Your task to perform on an android device: turn notification dots off Image 0: 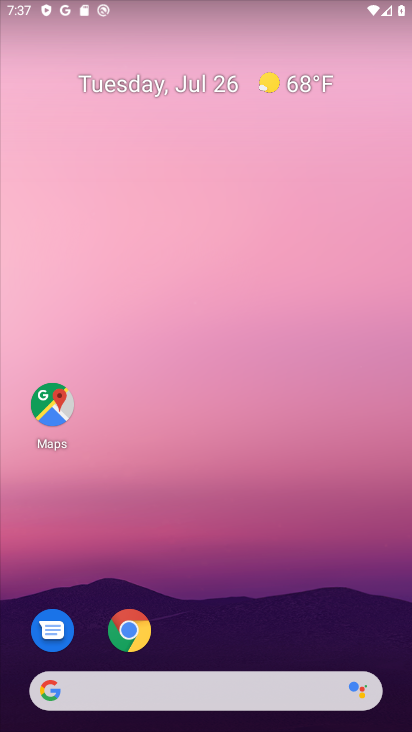
Step 0: press home button
Your task to perform on an android device: turn notification dots off Image 1: 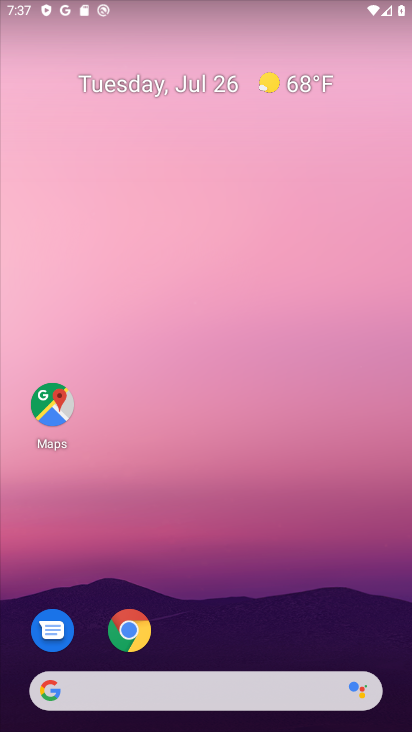
Step 1: drag from (363, 624) to (361, 55)
Your task to perform on an android device: turn notification dots off Image 2: 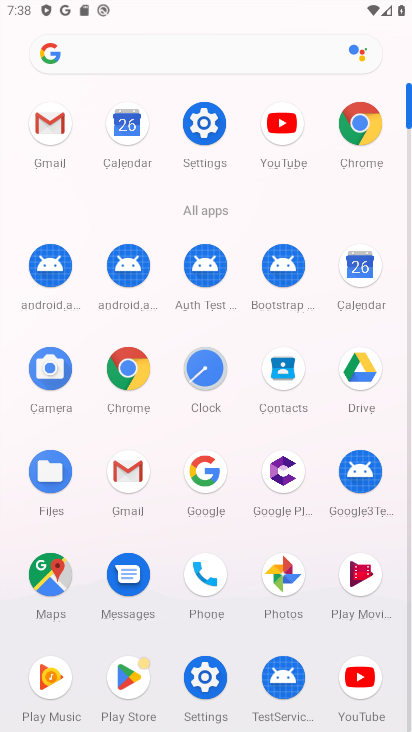
Step 2: click (208, 126)
Your task to perform on an android device: turn notification dots off Image 3: 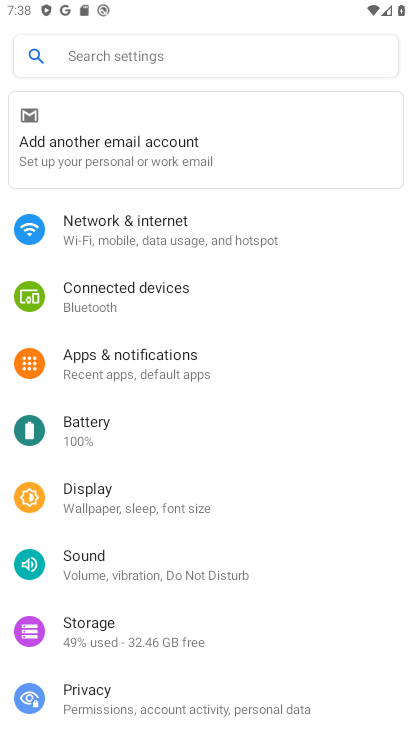
Step 3: click (155, 365)
Your task to perform on an android device: turn notification dots off Image 4: 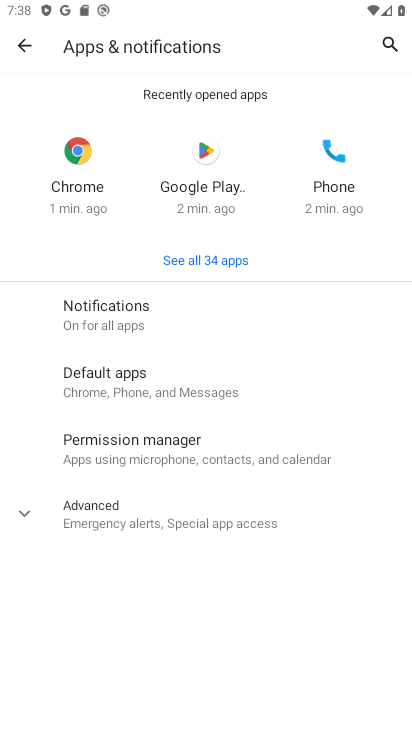
Step 4: click (157, 317)
Your task to perform on an android device: turn notification dots off Image 5: 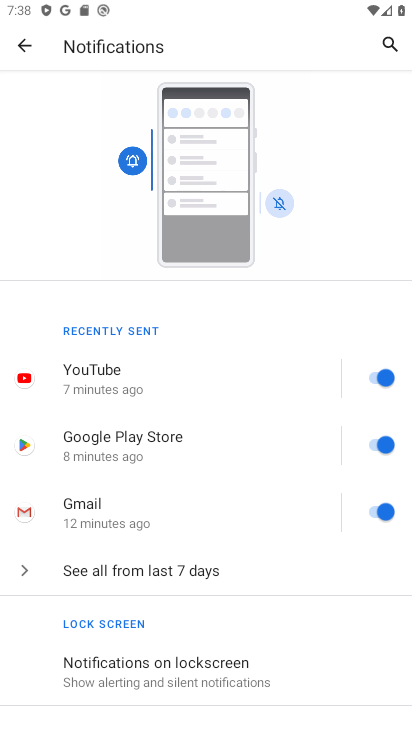
Step 5: drag from (279, 494) to (280, 431)
Your task to perform on an android device: turn notification dots off Image 6: 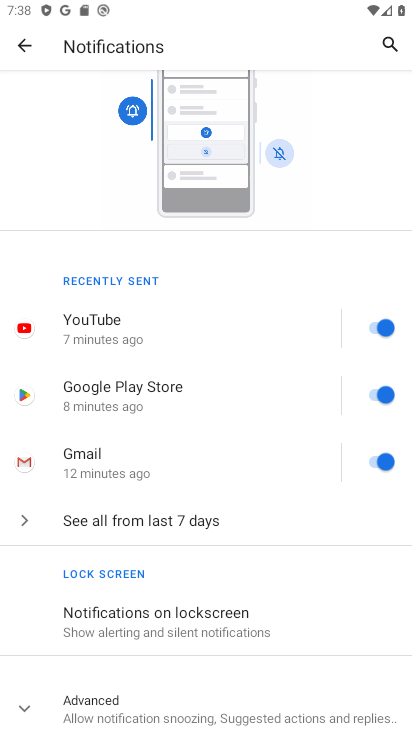
Step 6: drag from (292, 525) to (305, 438)
Your task to perform on an android device: turn notification dots off Image 7: 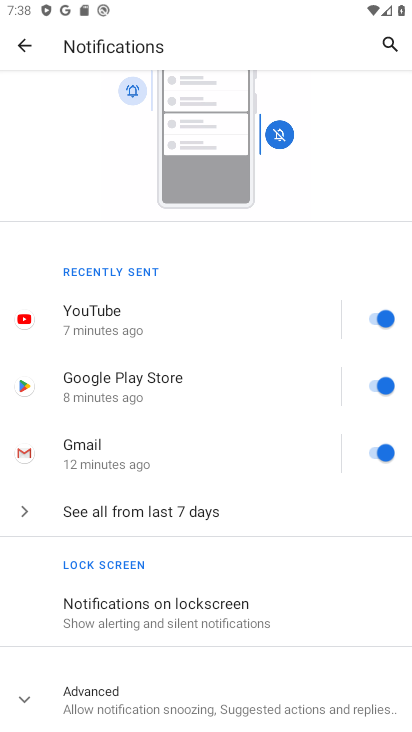
Step 7: click (281, 685)
Your task to perform on an android device: turn notification dots off Image 8: 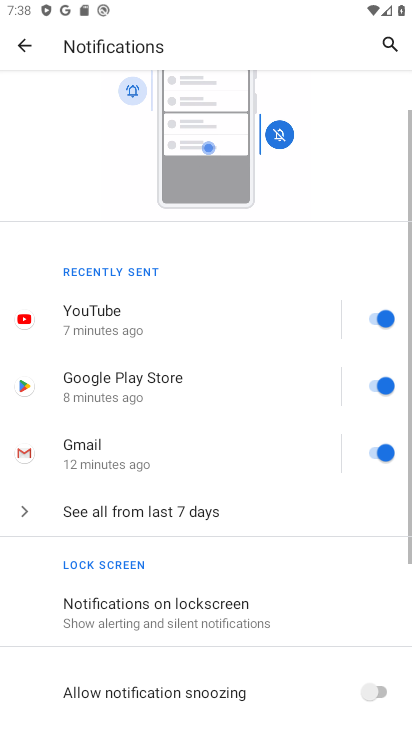
Step 8: drag from (281, 679) to (293, 590)
Your task to perform on an android device: turn notification dots off Image 9: 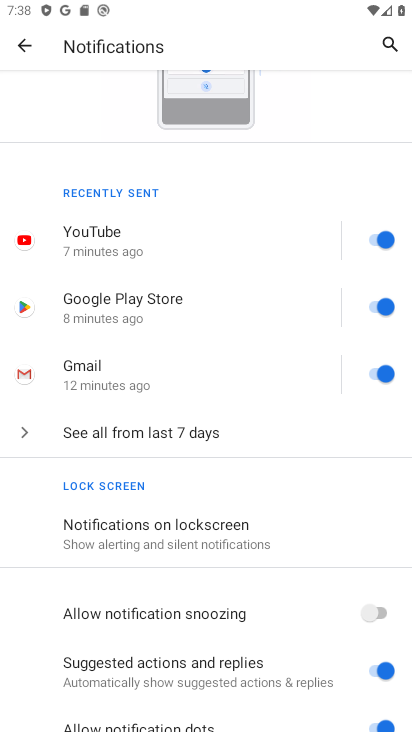
Step 9: drag from (286, 653) to (285, 560)
Your task to perform on an android device: turn notification dots off Image 10: 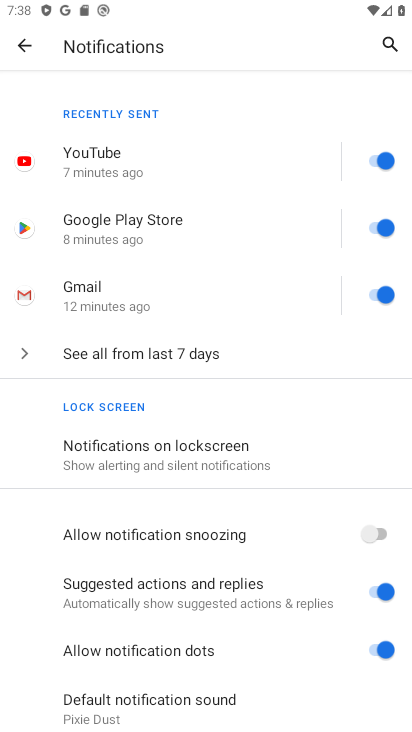
Step 10: click (384, 648)
Your task to perform on an android device: turn notification dots off Image 11: 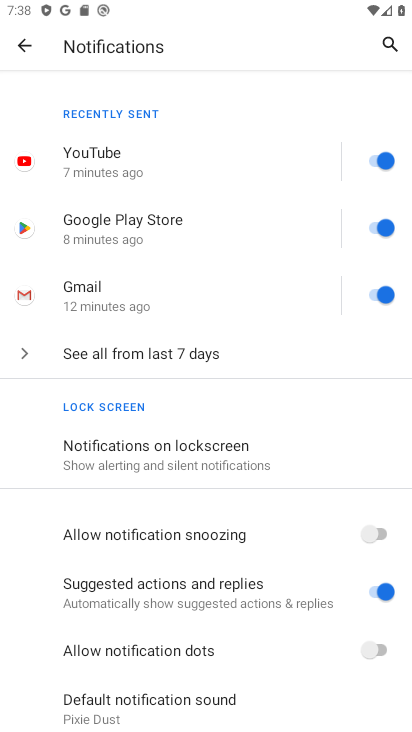
Step 11: task complete